Your task to perform on an android device: Find coffee shops on Maps Image 0: 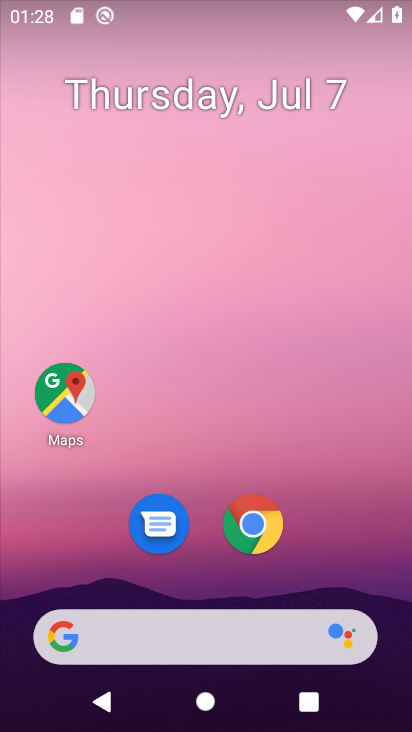
Step 0: click (75, 395)
Your task to perform on an android device: Find coffee shops on Maps Image 1: 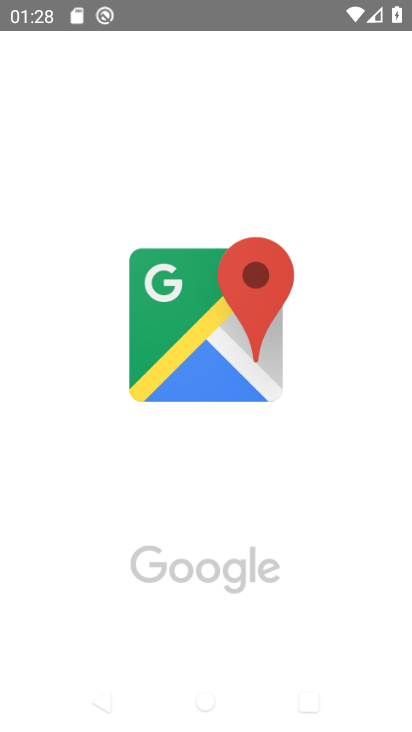
Step 1: click (173, 182)
Your task to perform on an android device: Find coffee shops on Maps Image 2: 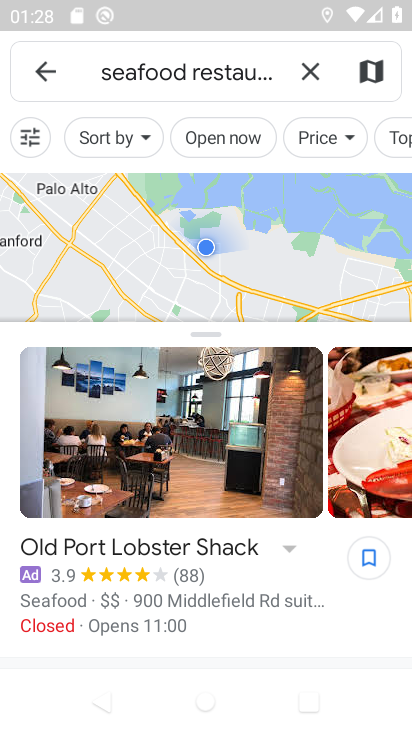
Step 2: click (316, 61)
Your task to perform on an android device: Find coffee shops on Maps Image 3: 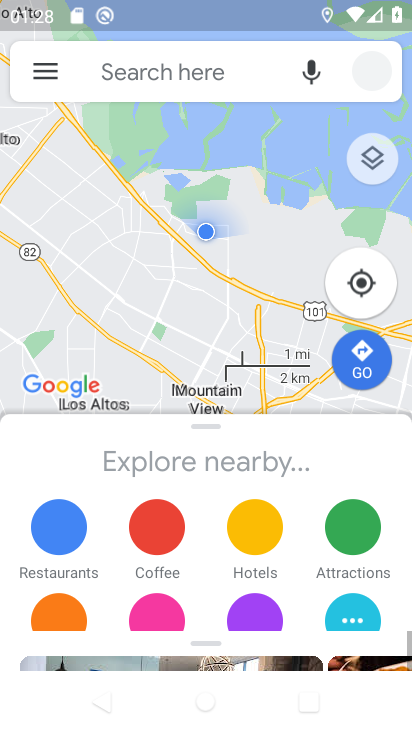
Step 3: click (208, 72)
Your task to perform on an android device: Find coffee shops on Maps Image 4: 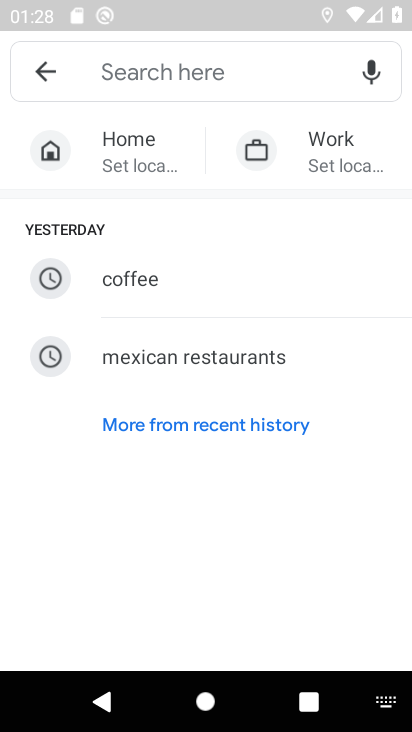
Step 4: click (208, 72)
Your task to perform on an android device: Find coffee shops on Maps Image 5: 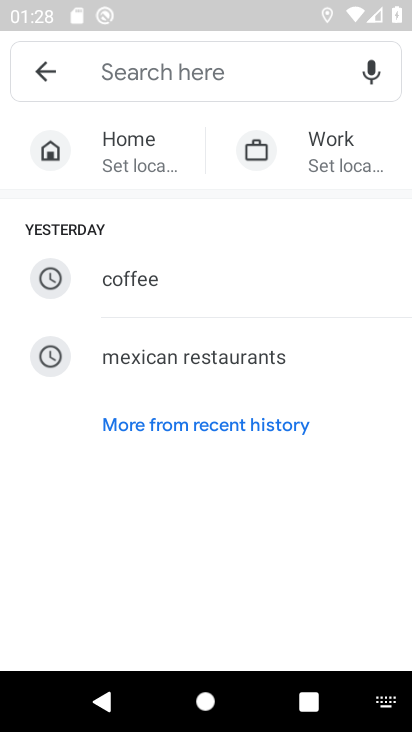
Step 5: click (131, 276)
Your task to perform on an android device: Find coffee shops on Maps Image 6: 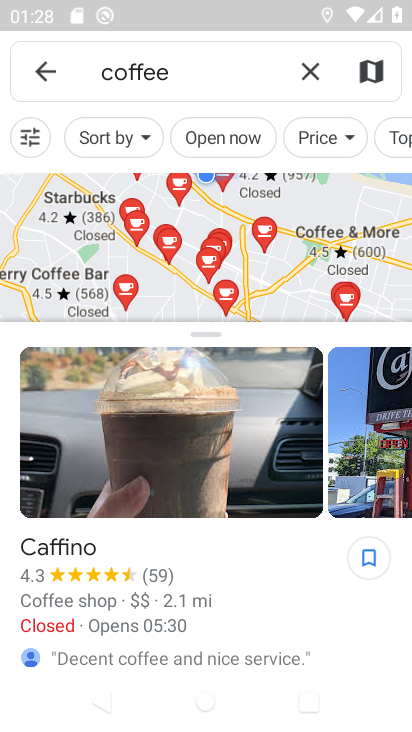
Step 6: task complete